Your task to perform on an android device: show emergency info Image 0: 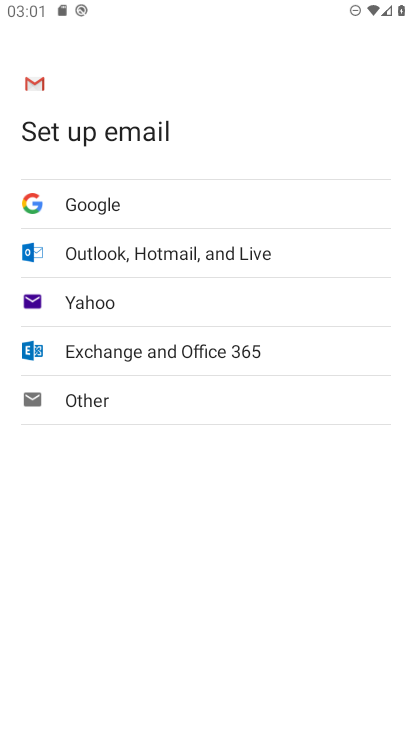
Step 0: press home button
Your task to perform on an android device: show emergency info Image 1: 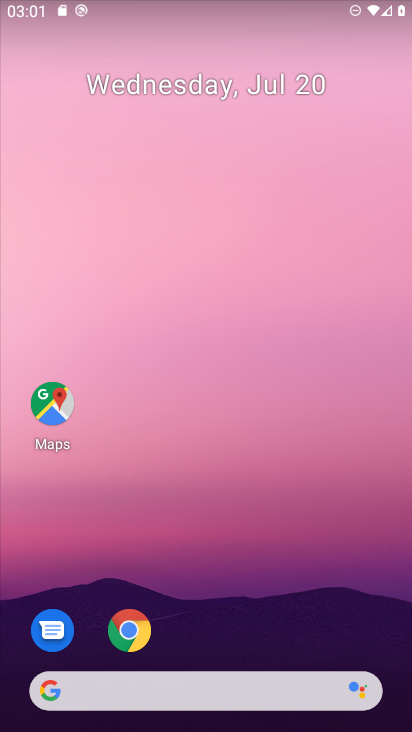
Step 1: drag from (351, 617) to (377, 115)
Your task to perform on an android device: show emergency info Image 2: 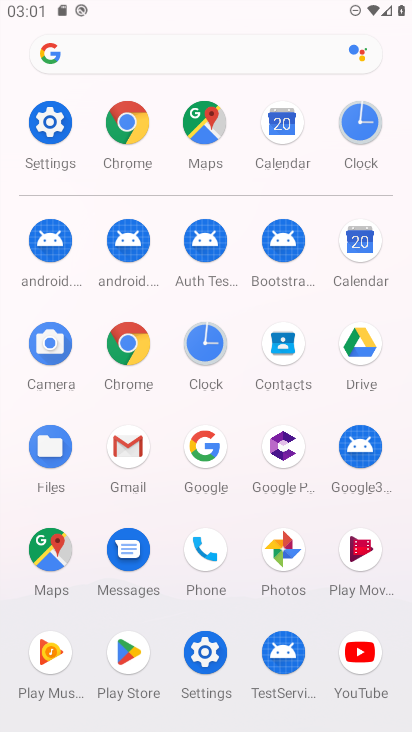
Step 2: click (45, 131)
Your task to perform on an android device: show emergency info Image 3: 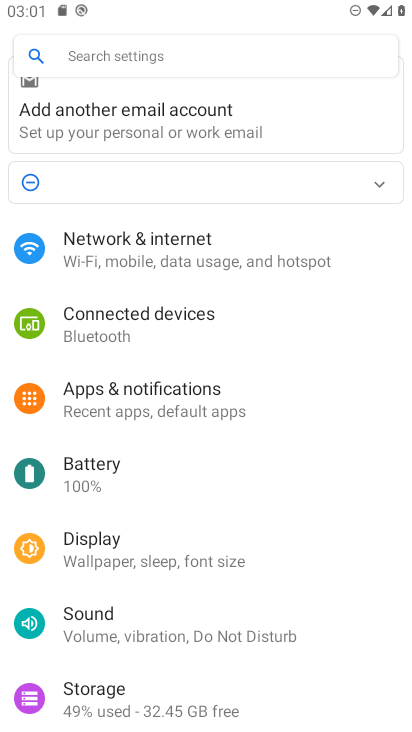
Step 3: drag from (366, 479) to (371, 421)
Your task to perform on an android device: show emergency info Image 4: 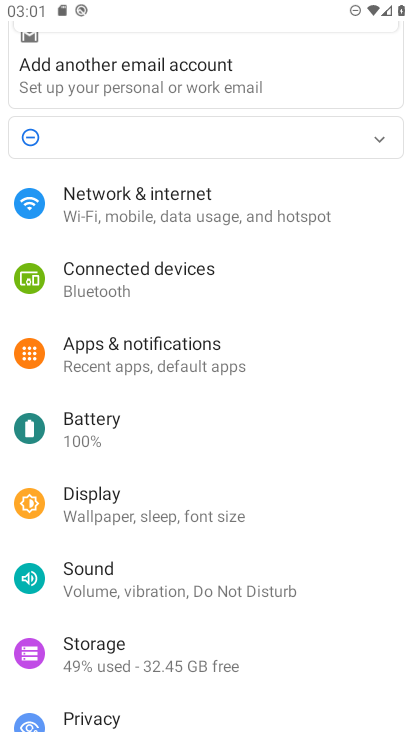
Step 4: drag from (349, 505) to (354, 432)
Your task to perform on an android device: show emergency info Image 5: 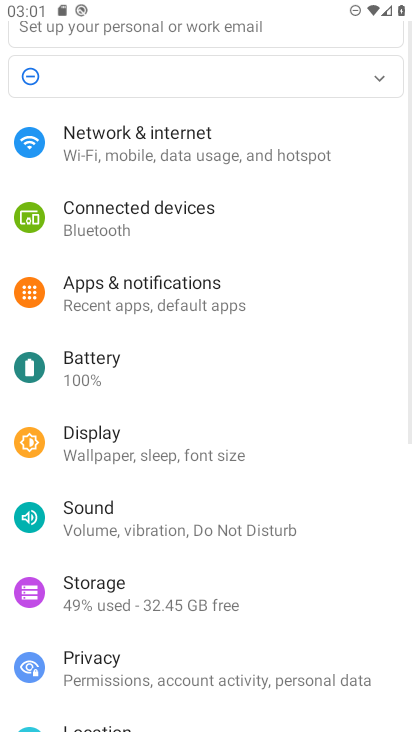
Step 5: drag from (356, 506) to (357, 444)
Your task to perform on an android device: show emergency info Image 6: 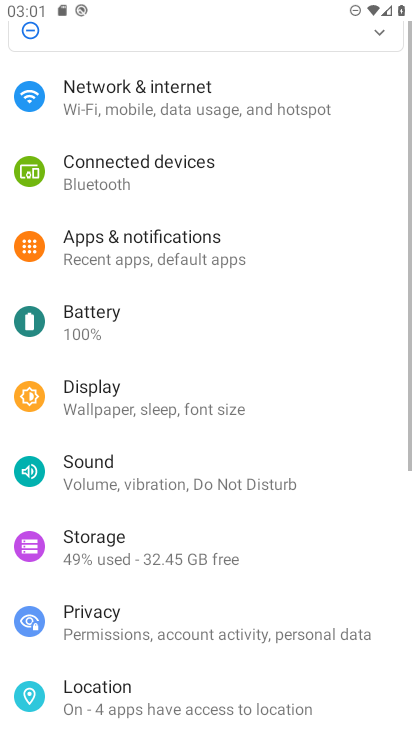
Step 6: drag from (343, 536) to (349, 454)
Your task to perform on an android device: show emergency info Image 7: 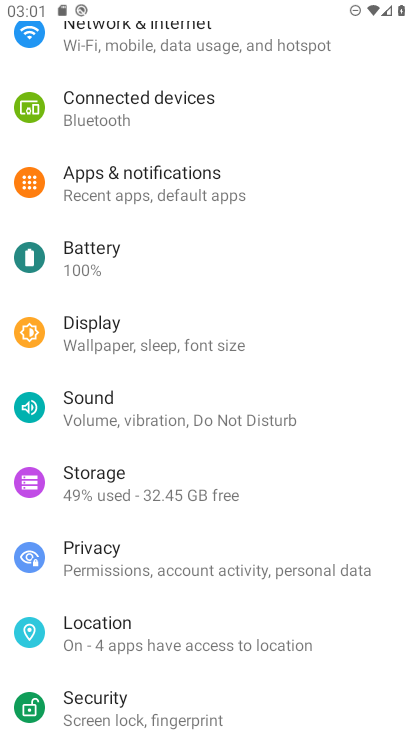
Step 7: drag from (340, 526) to (342, 420)
Your task to perform on an android device: show emergency info Image 8: 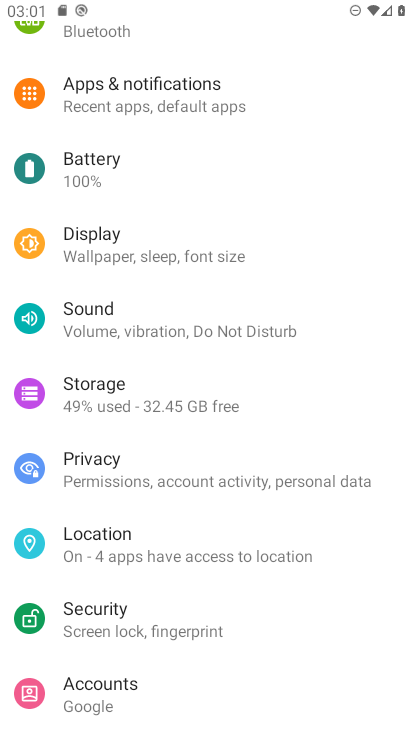
Step 8: drag from (347, 552) to (349, 383)
Your task to perform on an android device: show emergency info Image 9: 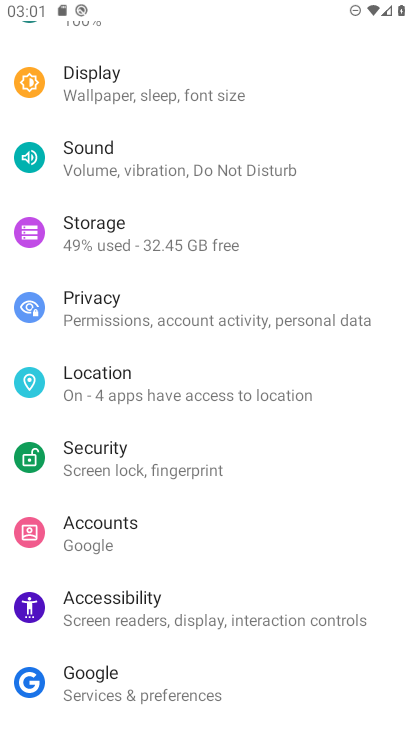
Step 9: drag from (335, 523) to (338, 408)
Your task to perform on an android device: show emergency info Image 10: 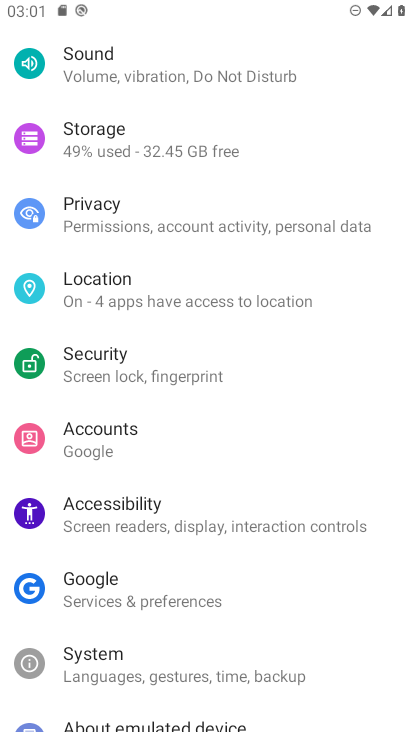
Step 10: drag from (333, 584) to (338, 459)
Your task to perform on an android device: show emergency info Image 11: 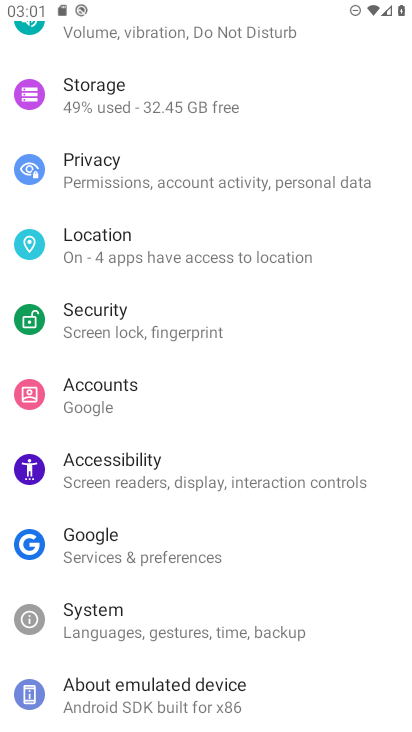
Step 11: click (295, 702)
Your task to perform on an android device: show emergency info Image 12: 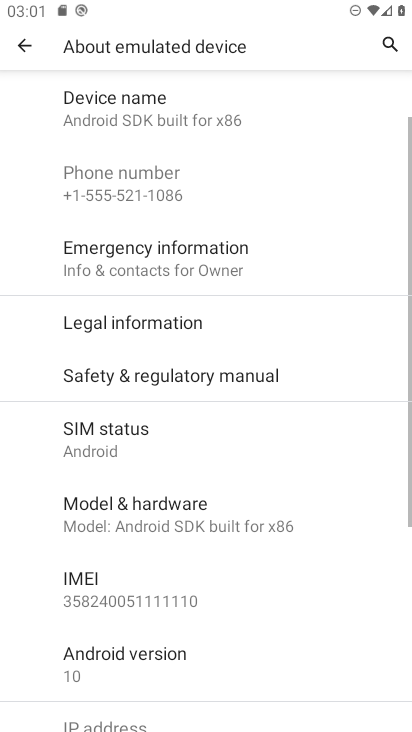
Step 12: click (264, 274)
Your task to perform on an android device: show emergency info Image 13: 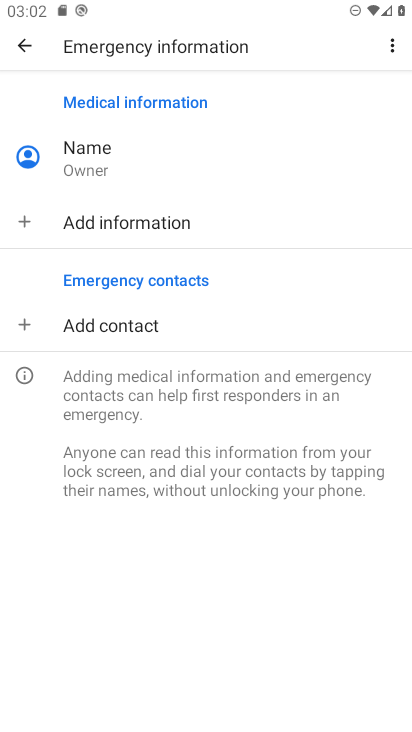
Step 13: task complete